Your task to perform on an android device: Open Google Maps Image 0: 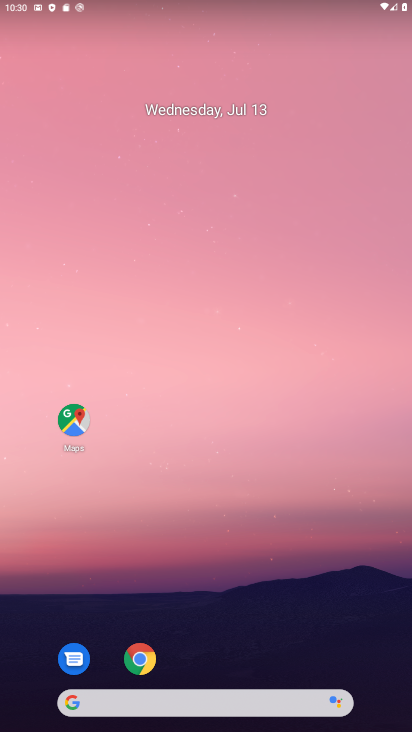
Step 0: click (73, 420)
Your task to perform on an android device: Open Google Maps Image 1: 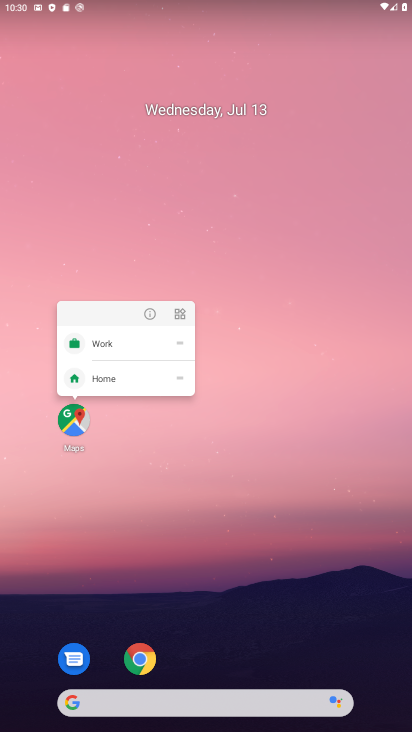
Step 1: click (73, 419)
Your task to perform on an android device: Open Google Maps Image 2: 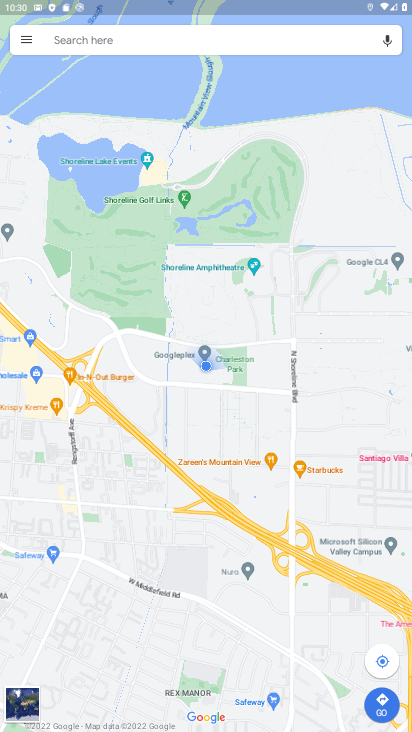
Step 2: task complete